Your task to perform on an android device: Open Yahoo.com Image 0: 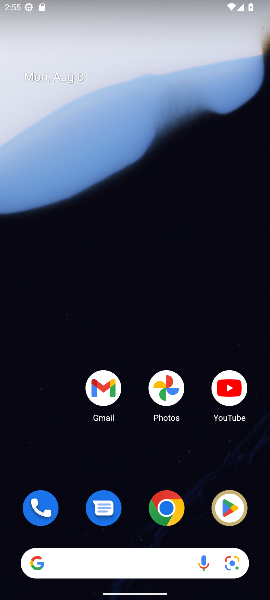
Step 0: click (167, 503)
Your task to perform on an android device: Open Yahoo.com Image 1: 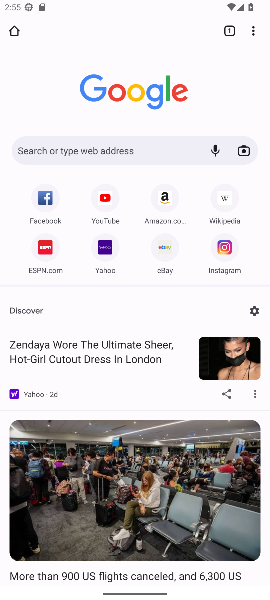
Step 1: click (104, 238)
Your task to perform on an android device: Open Yahoo.com Image 2: 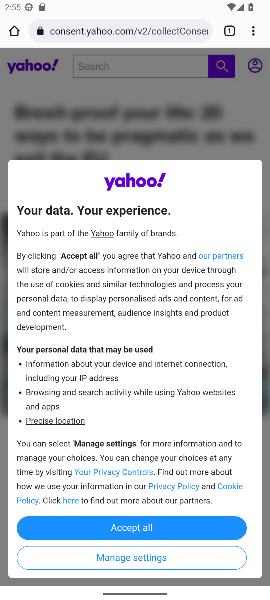
Step 2: click (141, 527)
Your task to perform on an android device: Open Yahoo.com Image 3: 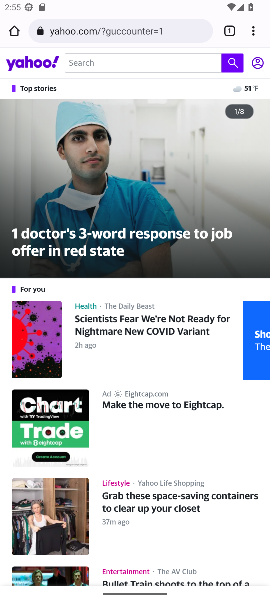
Step 3: task complete